Your task to perform on an android device: Find coffee shops on Maps Image 0: 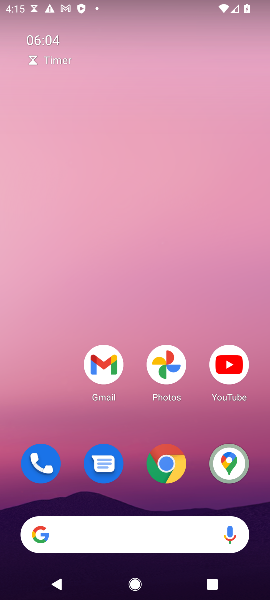
Step 0: drag from (130, 541) to (144, 43)
Your task to perform on an android device: Find coffee shops on Maps Image 1: 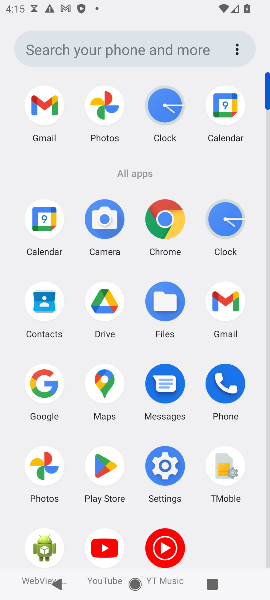
Step 1: click (111, 375)
Your task to perform on an android device: Find coffee shops on Maps Image 2: 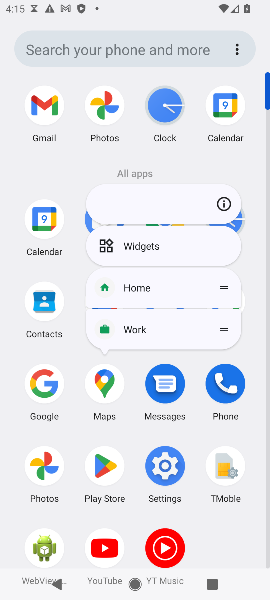
Step 2: click (97, 381)
Your task to perform on an android device: Find coffee shops on Maps Image 3: 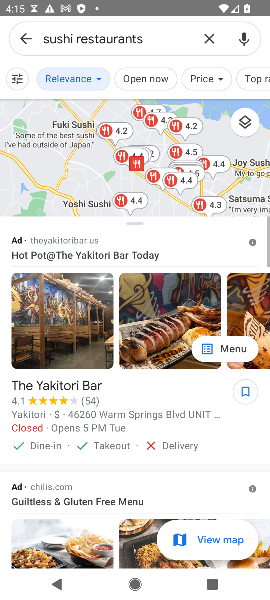
Step 3: click (244, 39)
Your task to perform on an android device: Find coffee shops on Maps Image 4: 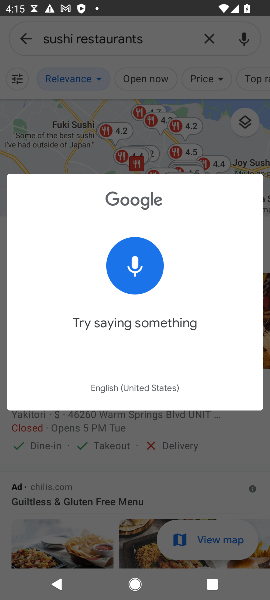
Step 4: click (147, 421)
Your task to perform on an android device: Find coffee shops on Maps Image 5: 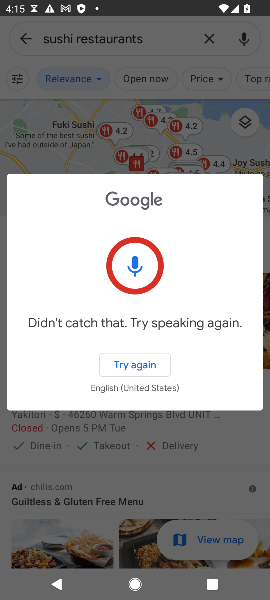
Step 5: click (205, 43)
Your task to perform on an android device: Find coffee shops on Maps Image 6: 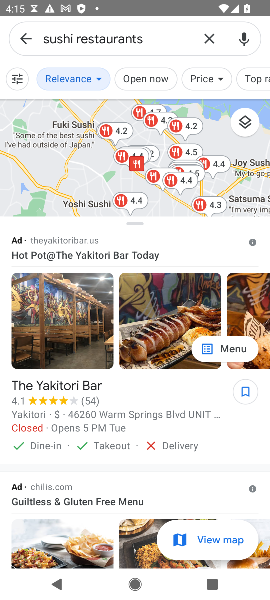
Step 6: click (152, 39)
Your task to perform on an android device: Find coffee shops on Maps Image 7: 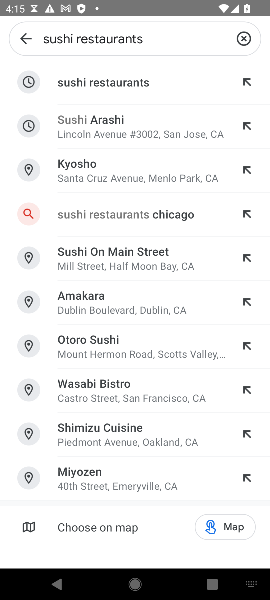
Step 7: click (243, 38)
Your task to perform on an android device: Find coffee shops on Maps Image 8: 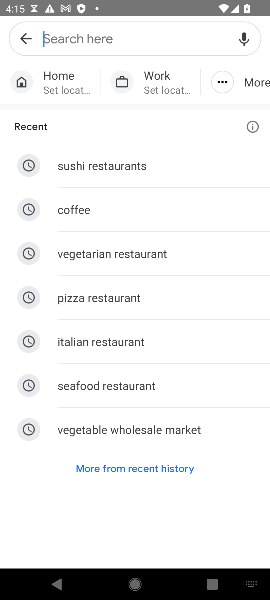
Step 8: click (113, 208)
Your task to perform on an android device: Find coffee shops on Maps Image 9: 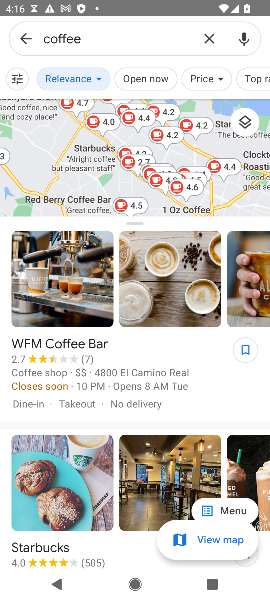
Step 9: task complete